Your task to perform on an android device: What is the news today? Image 0: 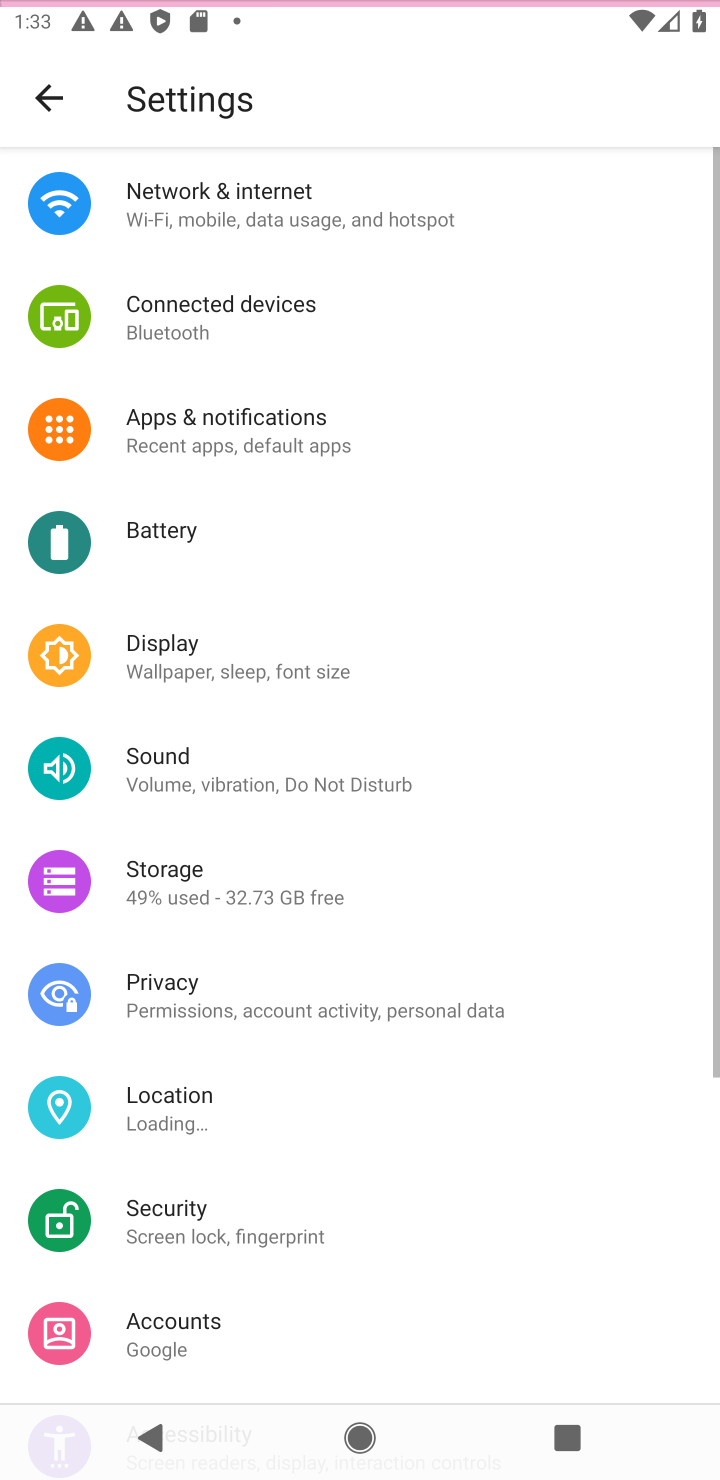
Step 0: press home button
Your task to perform on an android device: What is the news today? Image 1: 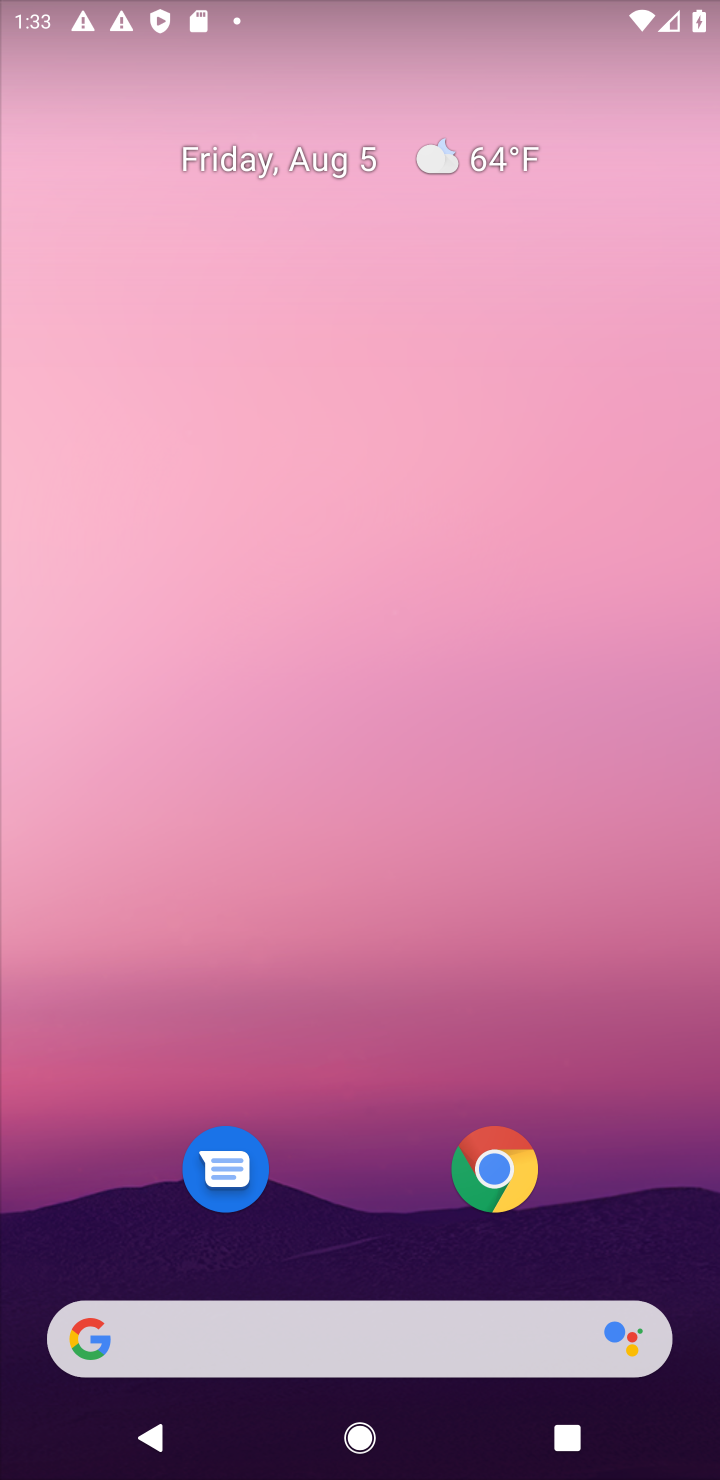
Step 1: click (400, 455)
Your task to perform on an android device: What is the news today? Image 2: 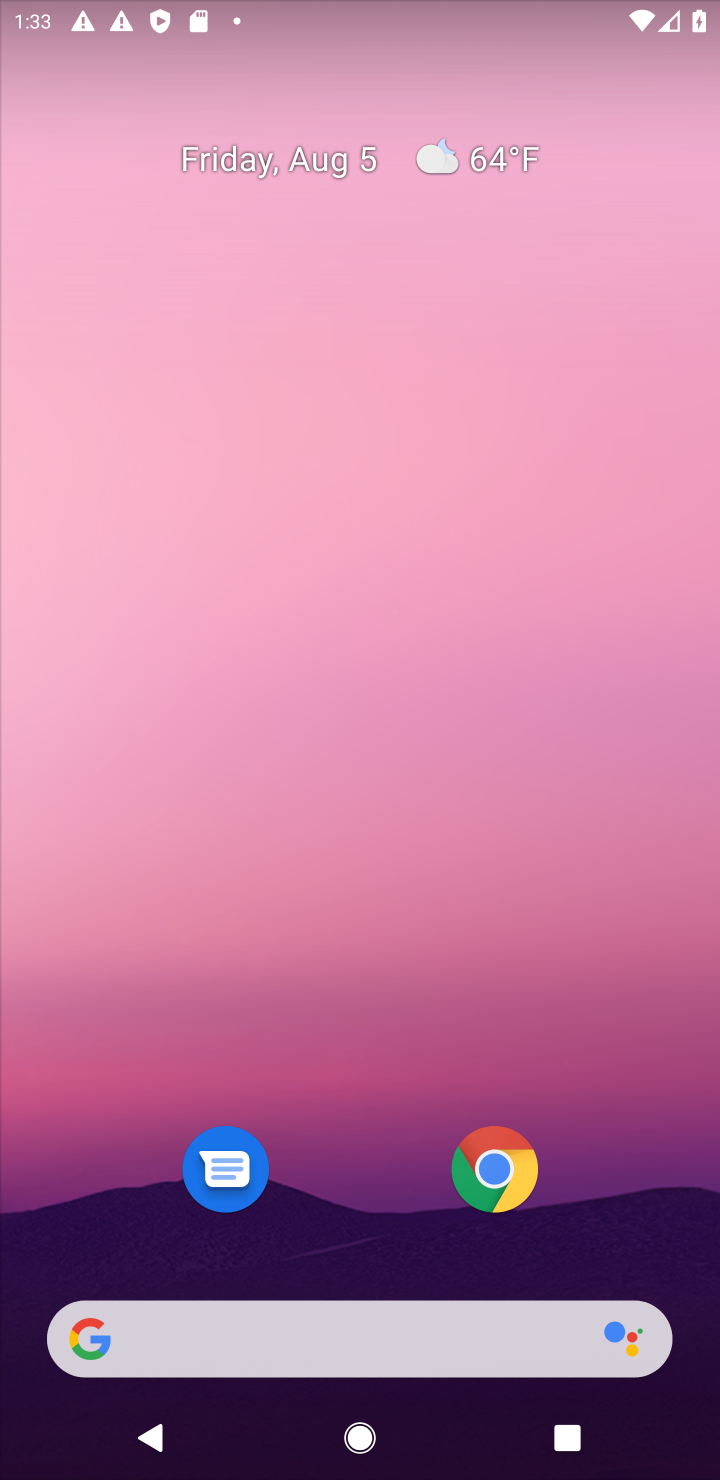
Step 2: drag from (334, 1156) to (334, 388)
Your task to perform on an android device: What is the news today? Image 3: 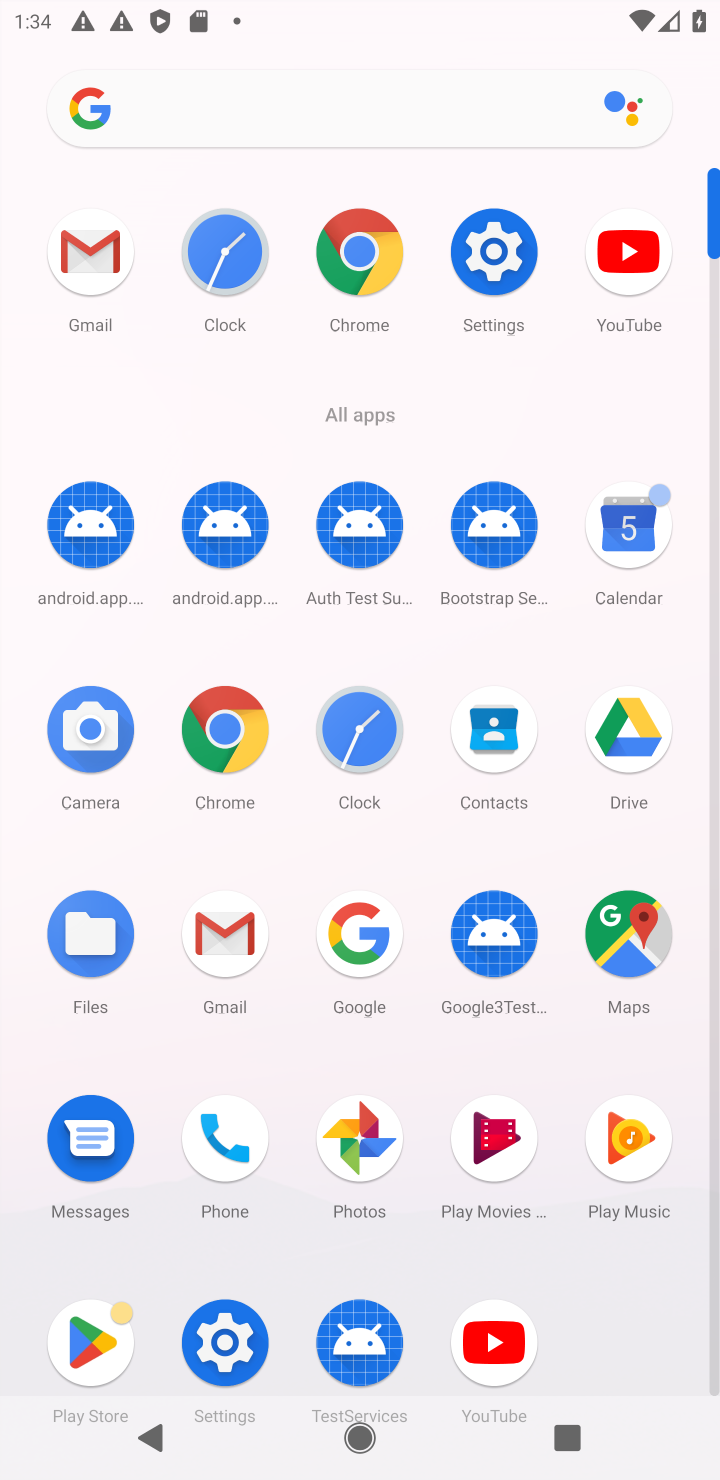
Step 3: click (363, 911)
Your task to perform on an android device: What is the news today? Image 4: 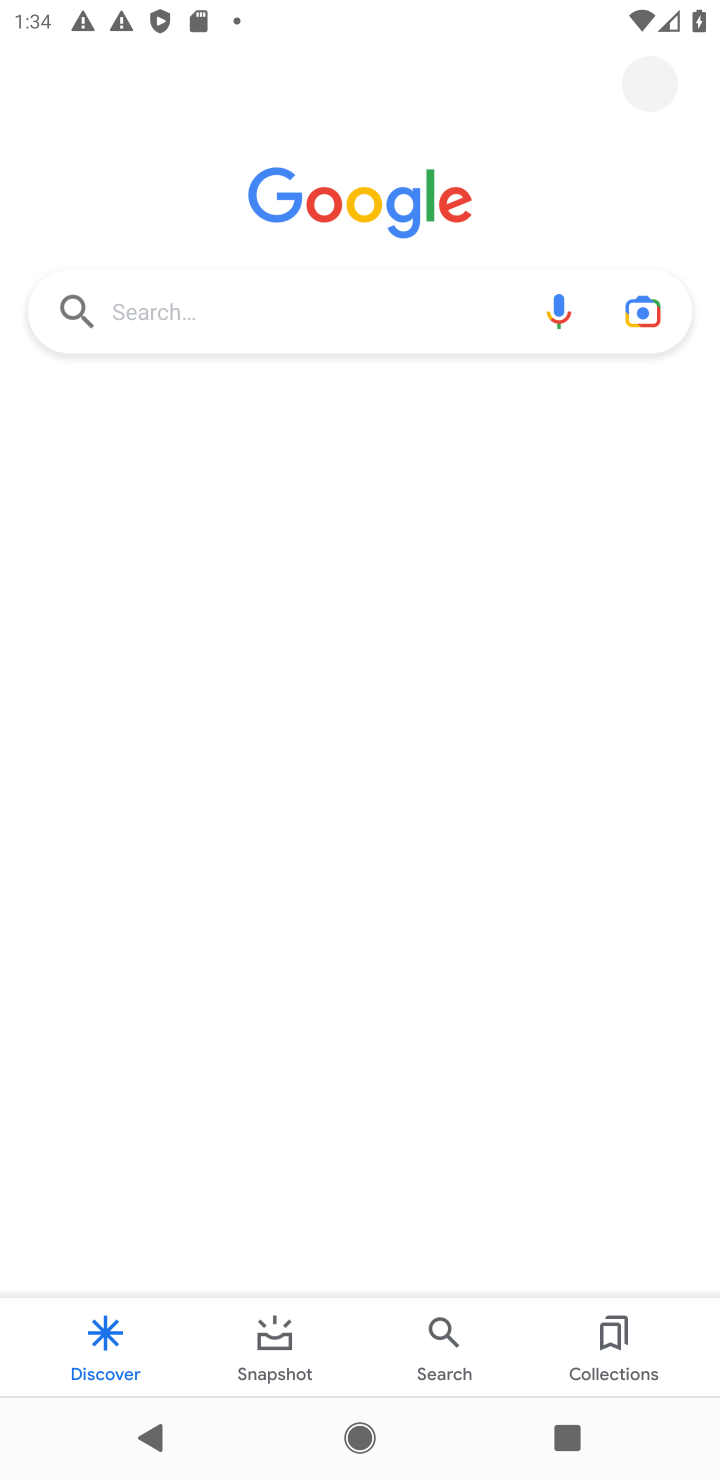
Step 4: click (285, 318)
Your task to perform on an android device: What is the news today? Image 5: 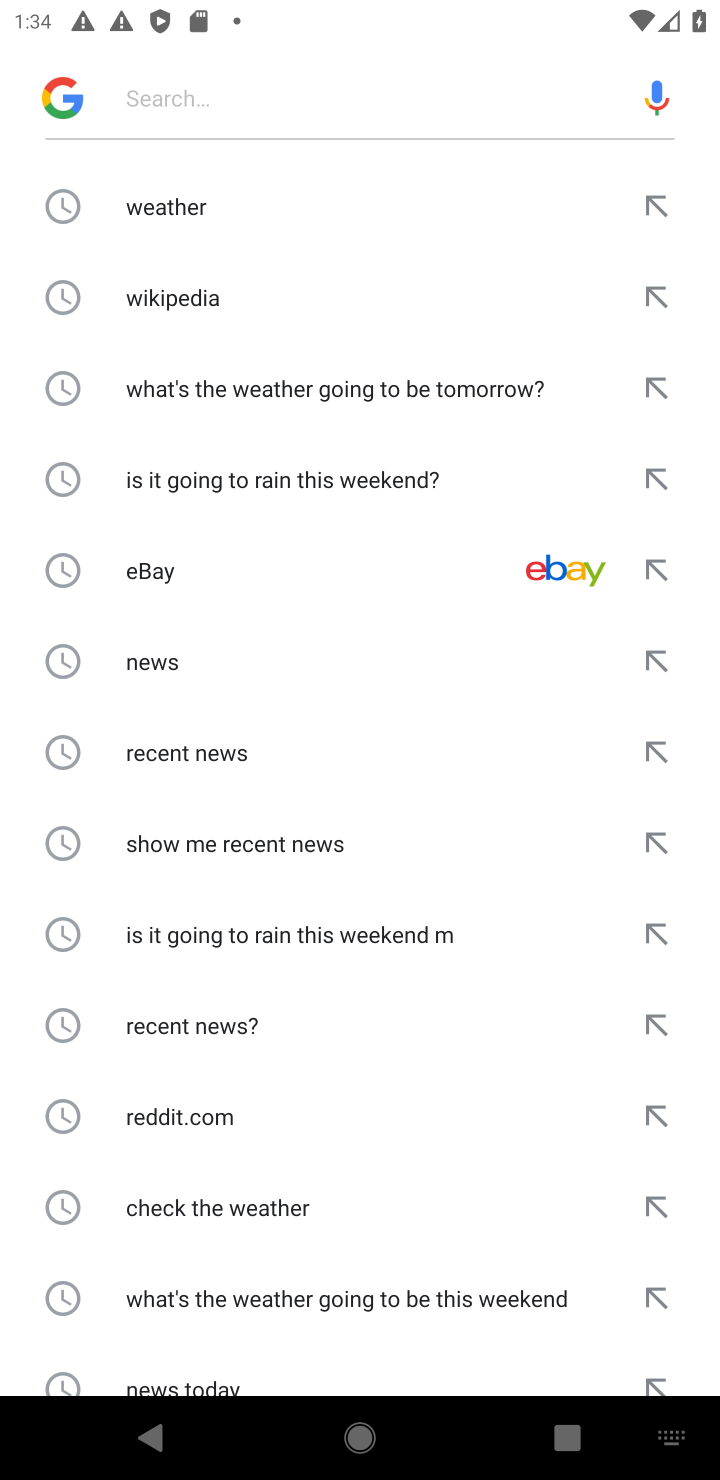
Step 5: click (256, 659)
Your task to perform on an android device: What is the news today? Image 6: 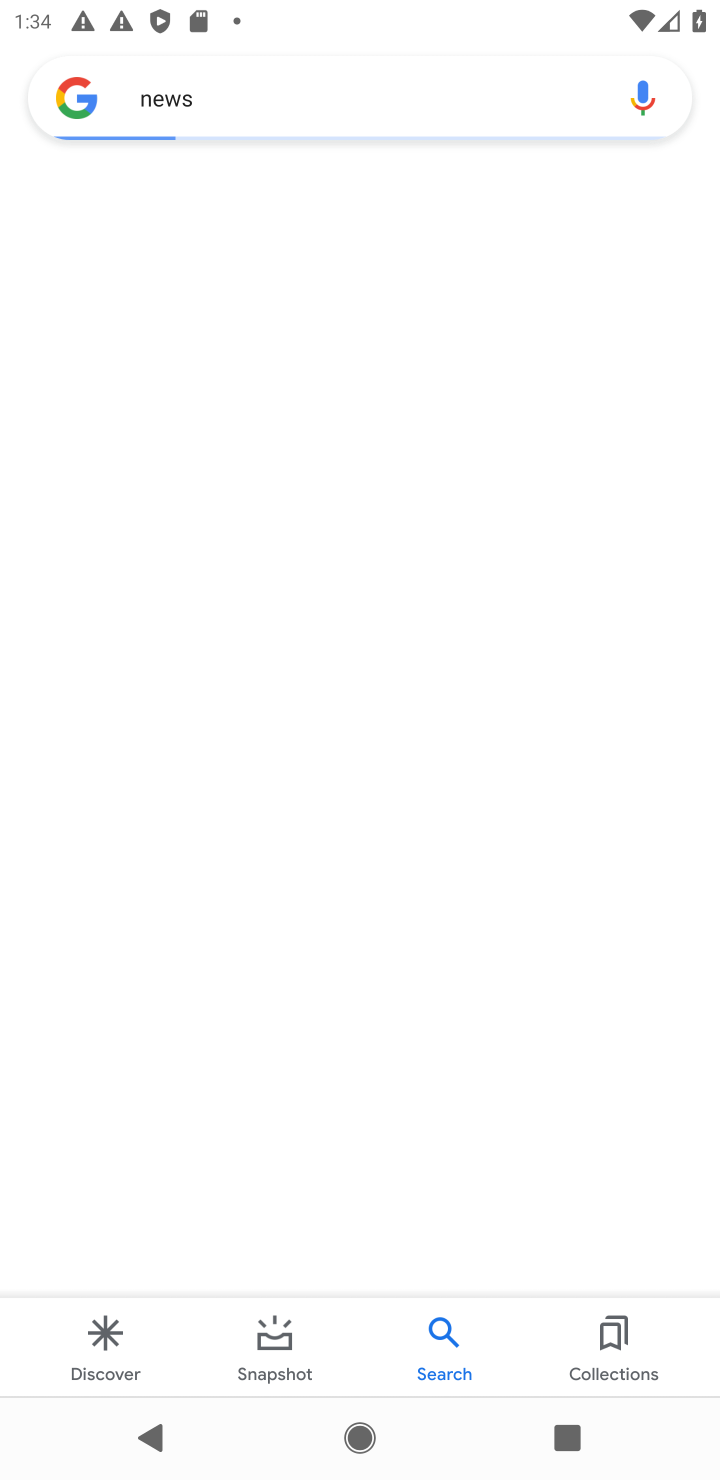
Step 6: task complete